Your task to perform on an android device: When is my next meeting? Image 0: 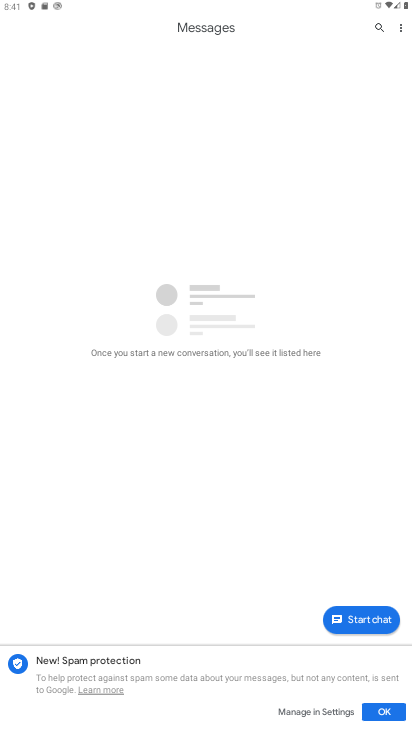
Step 0: press home button
Your task to perform on an android device: When is my next meeting? Image 1: 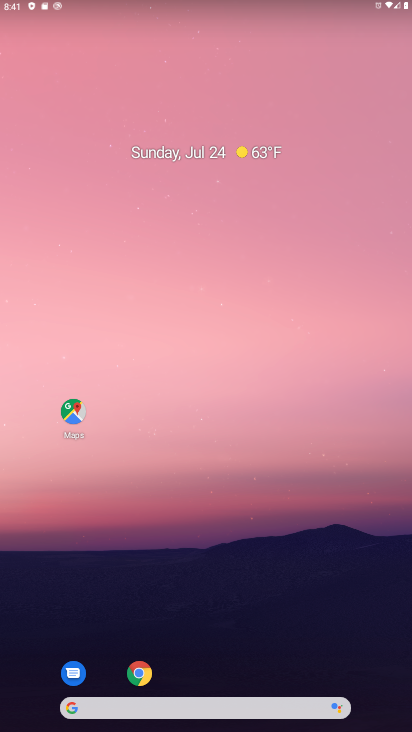
Step 1: drag from (212, 681) to (180, 107)
Your task to perform on an android device: When is my next meeting? Image 2: 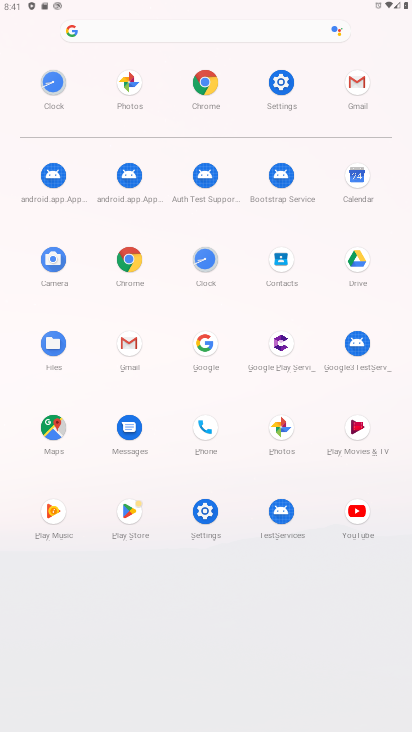
Step 2: click (349, 189)
Your task to perform on an android device: When is my next meeting? Image 3: 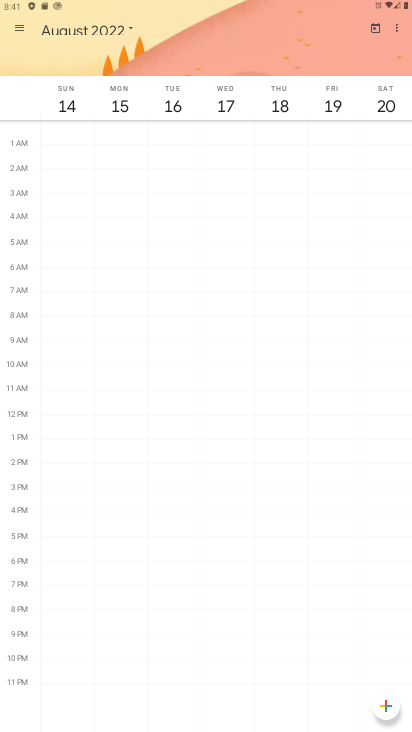
Step 3: task complete